Your task to perform on an android device: turn pop-ups on in chrome Image 0: 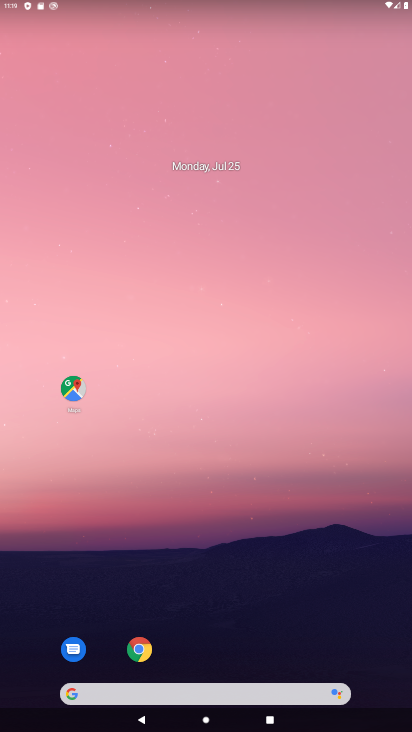
Step 0: click (140, 651)
Your task to perform on an android device: turn pop-ups on in chrome Image 1: 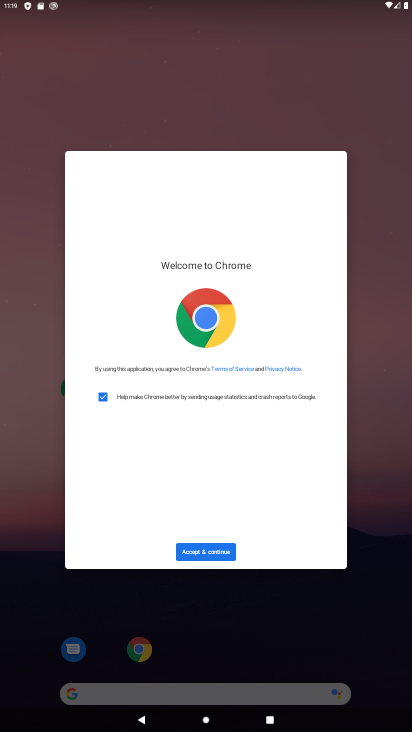
Step 1: click (195, 547)
Your task to perform on an android device: turn pop-ups on in chrome Image 2: 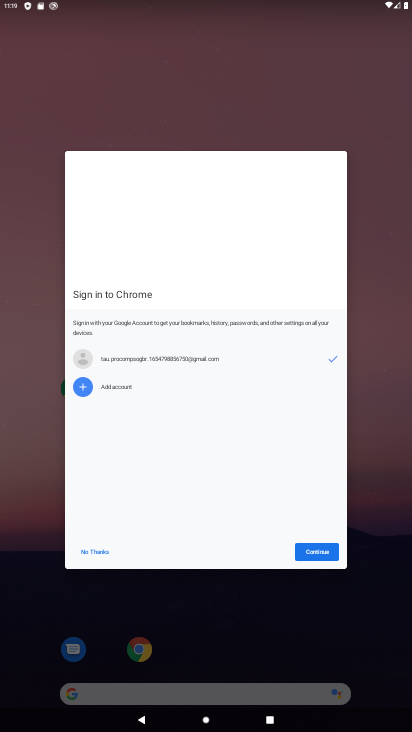
Step 2: click (311, 553)
Your task to perform on an android device: turn pop-ups on in chrome Image 3: 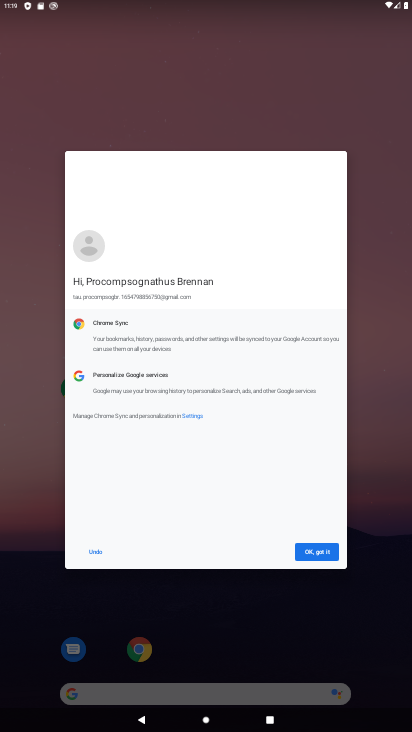
Step 3: click (311, 553)
Your task to perform on an android device: turn pop-ups on in chrome Image 4: 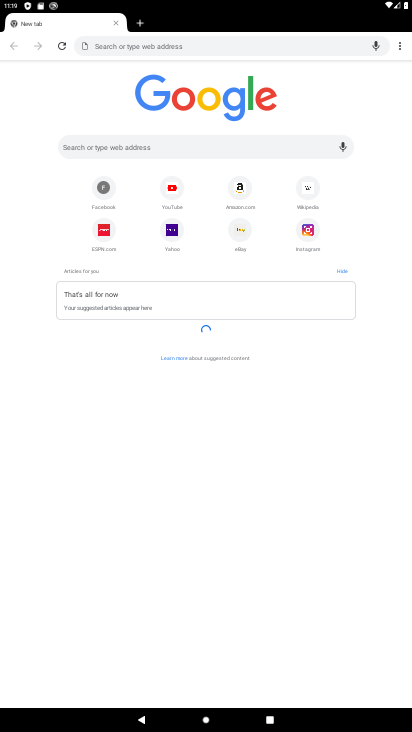
Step 4: click (401, 50)
Your task to perform on an android device: turn pop-ups on in chrome Image 5: 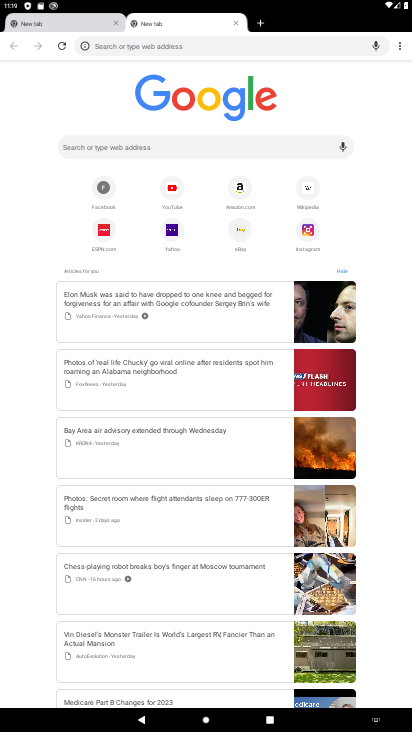
Step 5: click (401, 50)
Your task to perform on an android device: turn pop-ups on in chrome Image 6: 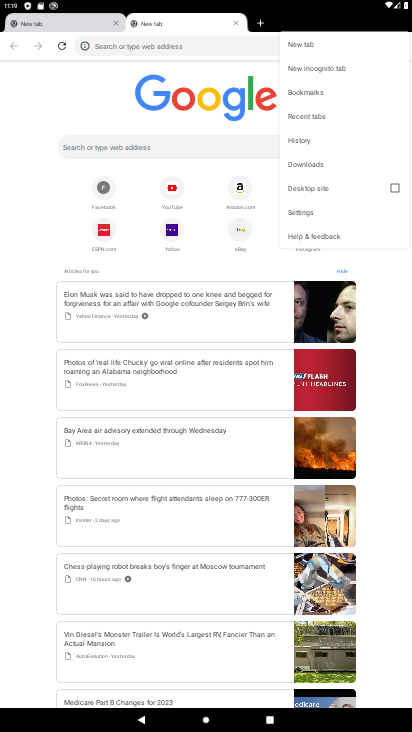
Step 6: click (302, 216)
Your task to perform on an android device: turn pop-ups on in chrome Image 7: 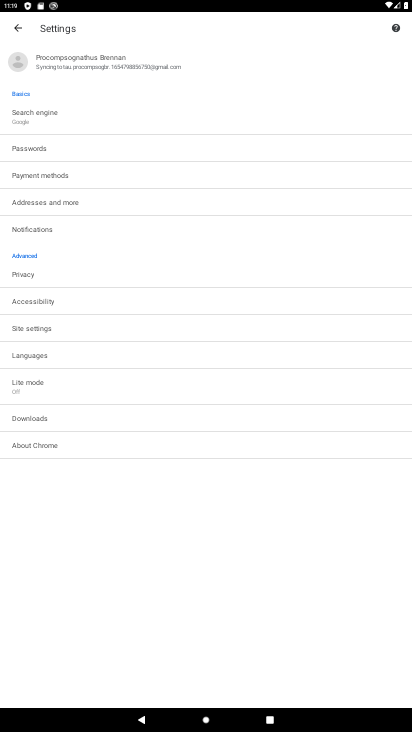
Step 7: click (38, 324)
Your task to perform on an android device: turn pop-ups on in chrome Image 8: 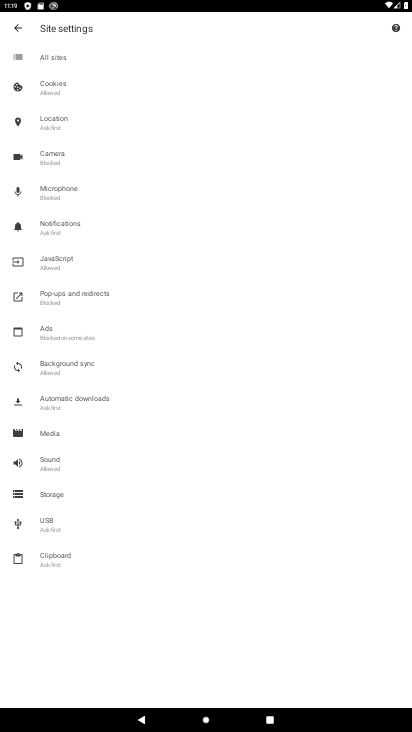
Step 8: click (61, 299)
Your task to perform on an android device: turn pop-ups on in chrome Image 9: 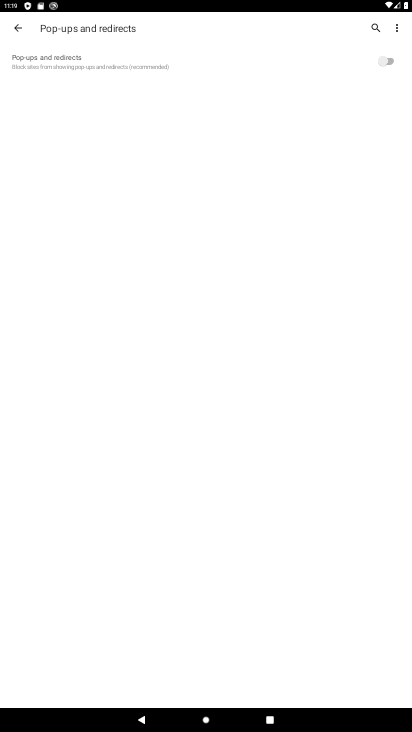
Step 9: click (389, 63)
Your task to perform on an android device: turn pop-ups on in chrome Image 10: 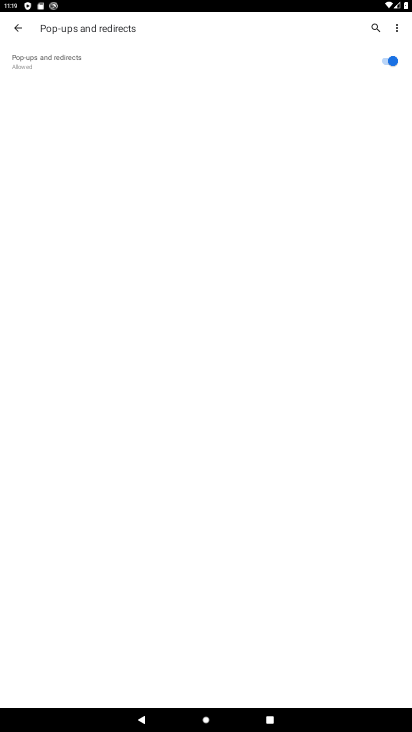
Step 10: task complete